Your task to perform on an android device: Go to display settings Image 0: 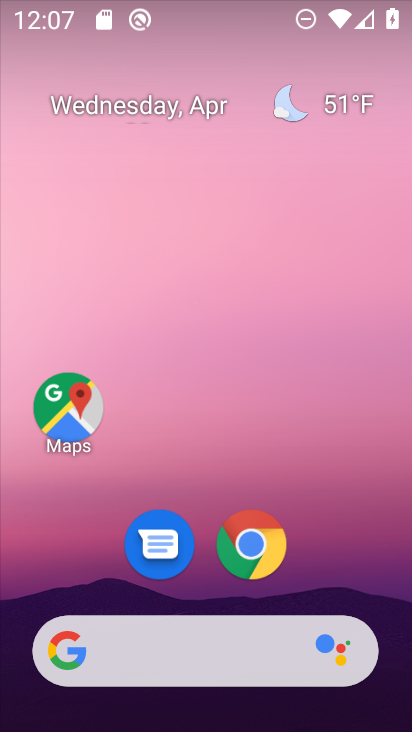
Step 0: drag from (348, 550) to (356, 126)
Your task to perform on an android device: Go to display settings Image 1: 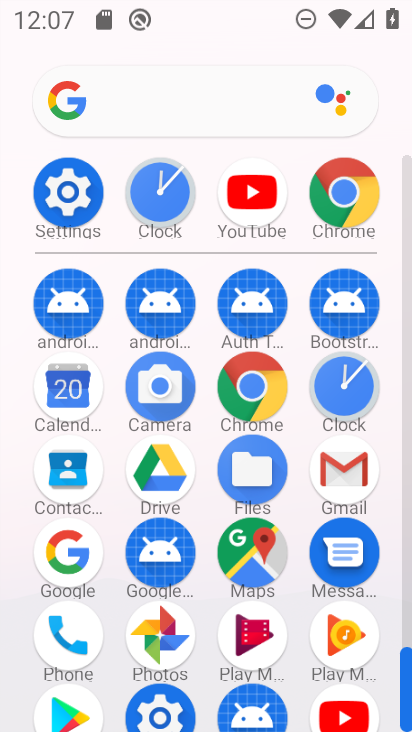
Step 1: click (65, 189)
Your task to perform on an android device: Go to display settings Image 2: 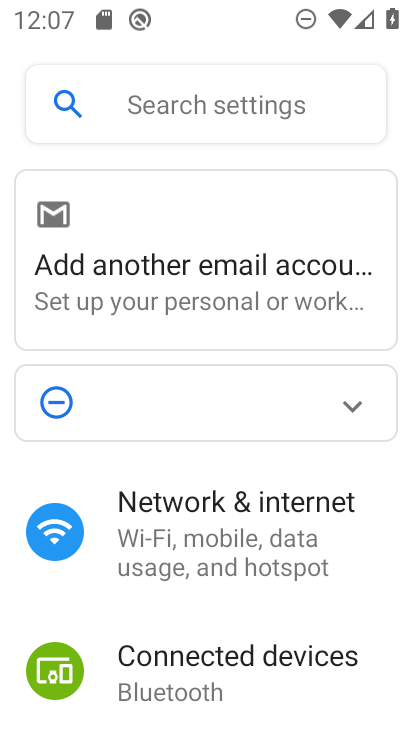
Step 2: drag from (366, 585) to (390, 369)
Your task to perform on an android device: Go to display settings Image 3: 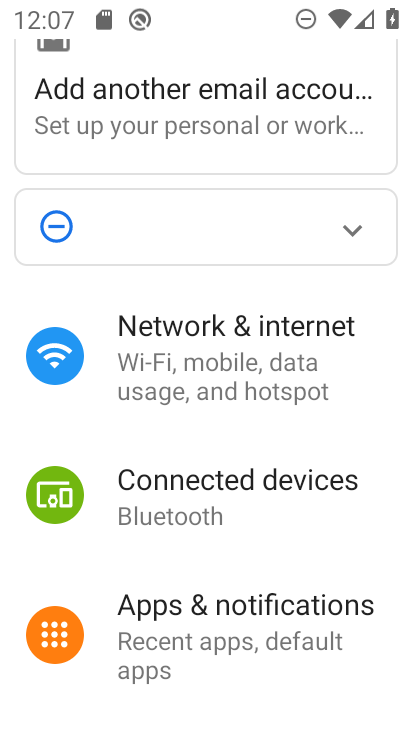
Step 3: drag from (361, 633) to (380, 386)
Your task to perform on an android device: Go to display settings Image 4: 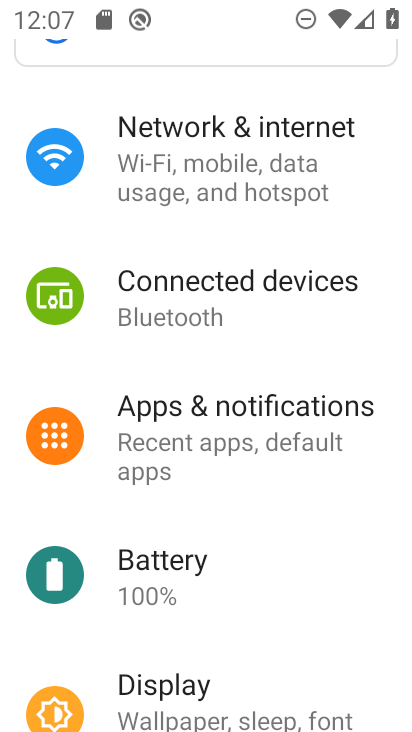
Step 4: drag from (343, 609) to (376, 369)
Your task to perform on an android device: Go to display settings Image 5: 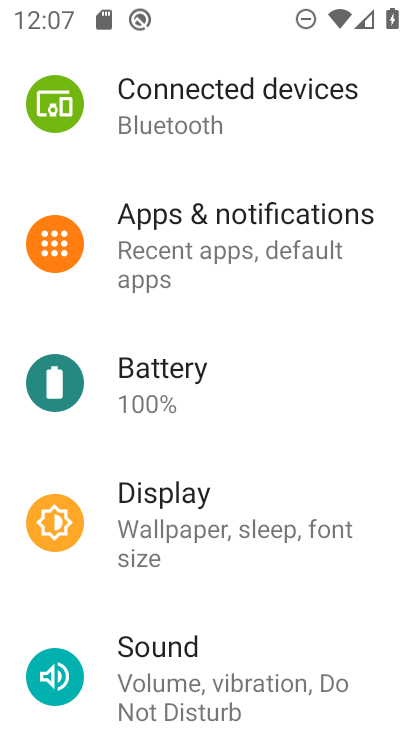
Step 5: drag from (362, 608) to (363, 459)
Your task to perform on an android device: Go to display settings Image 6: 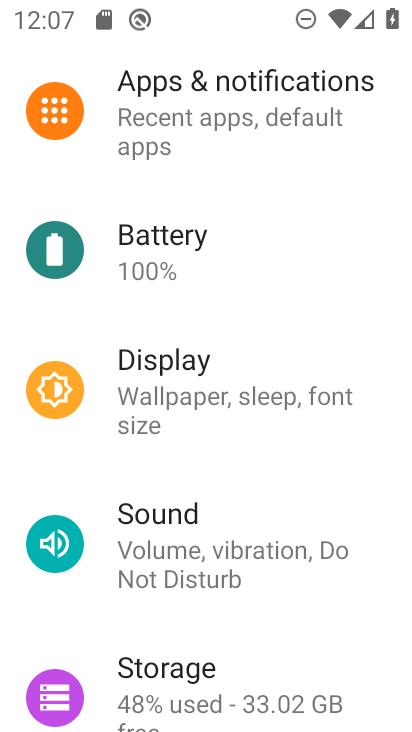
Step 6: drag from (356, 624) to (380, 461)
Your task to perform on an android device: Go to display settings Image 7: 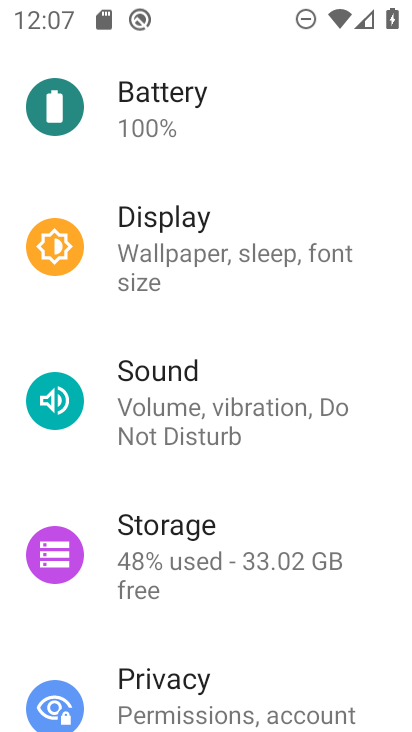
Step 7: drag from (354, 650) to (368, 479)
Your task to perform on an android device: Go to display settings Image 8: 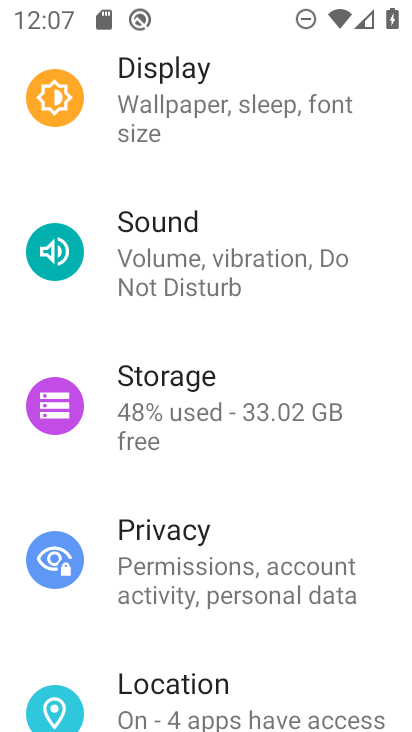
Step 8: drag from (361, 664) to (375, 467)
Your task to perform on an android device: Go to display settings Image 9: 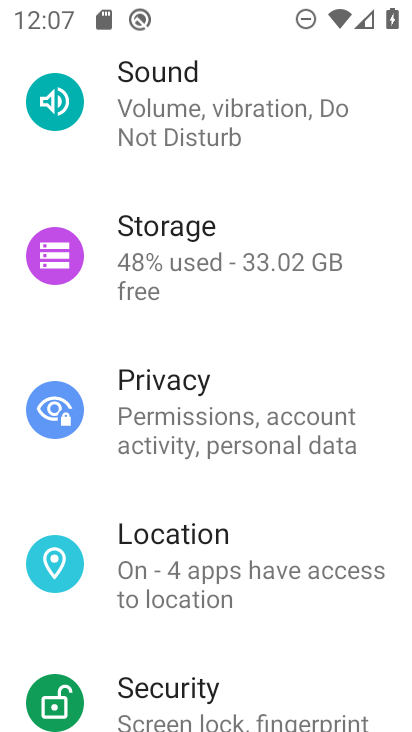
Step 9: drag from (355, 664) to (390, 484)
Your task to perform on an android device: Go to display settings Image 10: 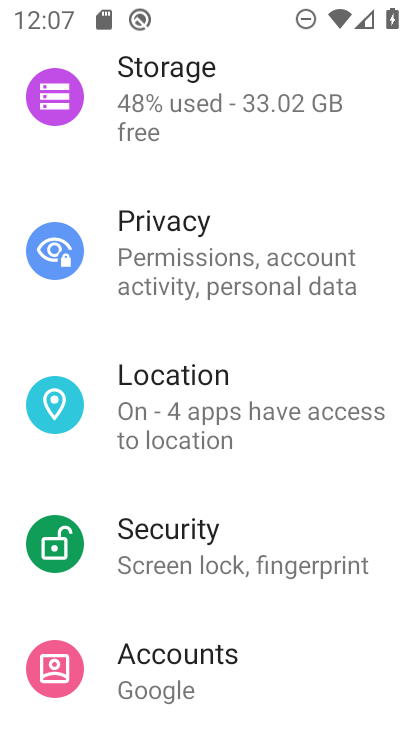
Step 10: drag from (380, 674) to (387, 504)
Your task to perform on an android device: Go to display settings Image 11: 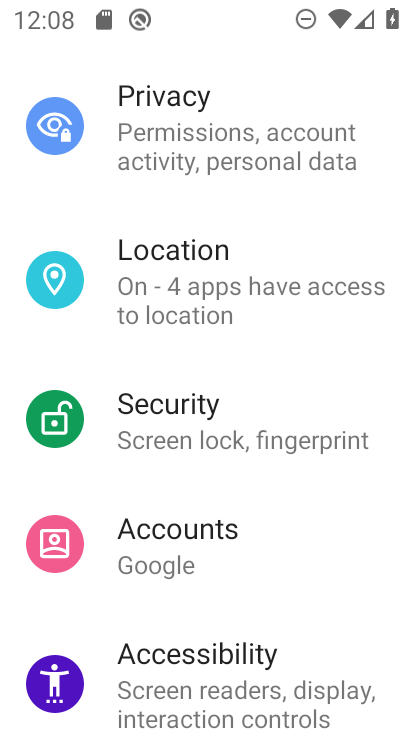
Step 11: drag from (379, 676) to (364, 458)
Your task to perform on an android device: Go to display settings Image 12: 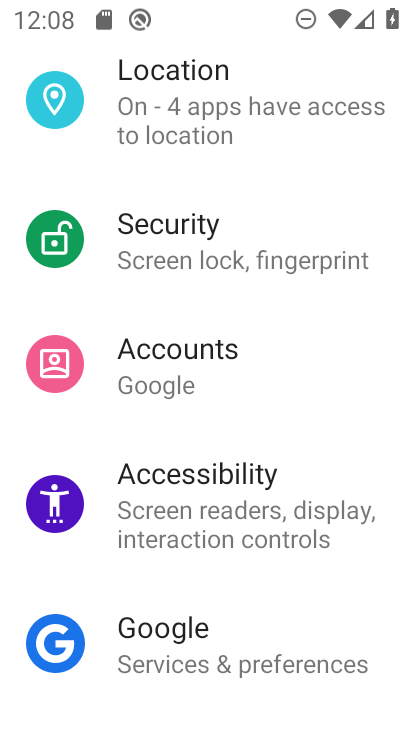
Step 12: drag from (370, 691) to (349, 463)
Your task to perform on an android device: Go to display settings Image 13: 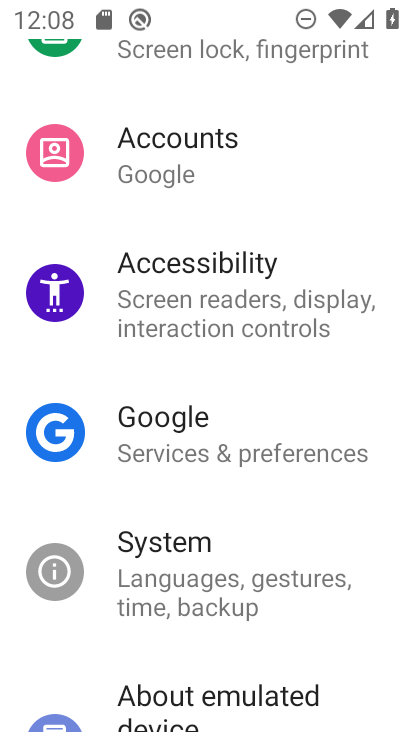
Step 13: drag from (375, 375) to (378, 562)
Your task to perform on an android device: Go to display settings Image 14: 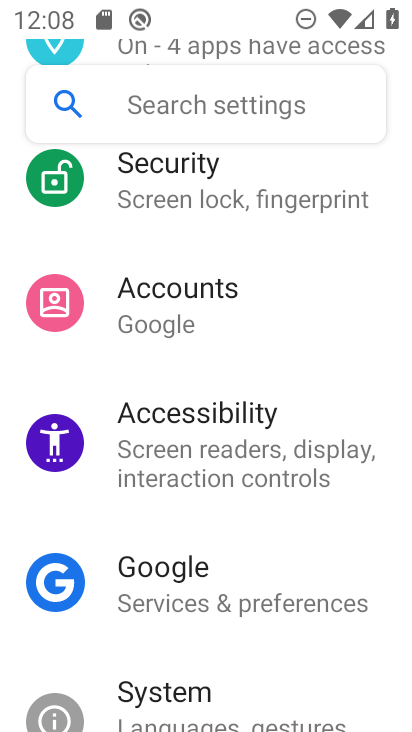
Step 14: drag from (384, 372) to (387, 554)
Your task to perform on an android device: Go to display settings Image 15: 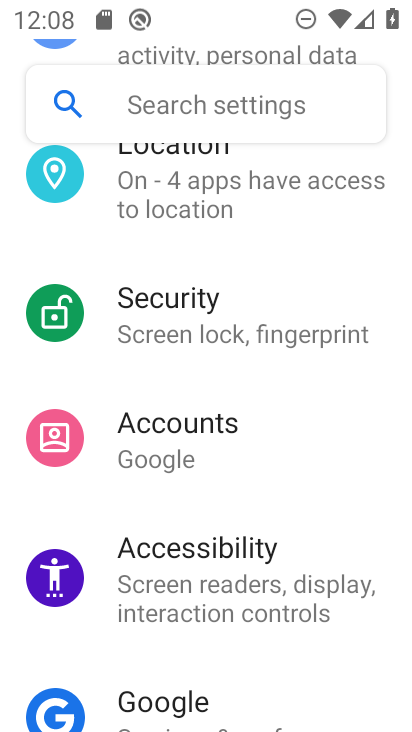
Step 15: drag from (385, 379) to (366, 543)
Your task to perform on an android device: Go to display settings Image 16: 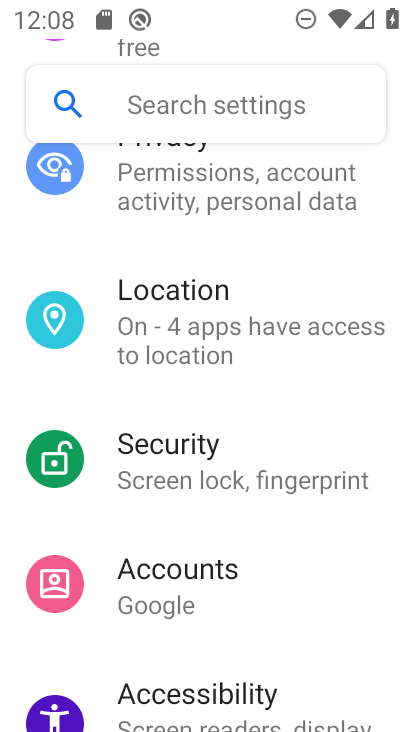
Step 16: drag from (381, 391) to (376, 593)
Your task to perform on an android device: Go to display settings Image 17: 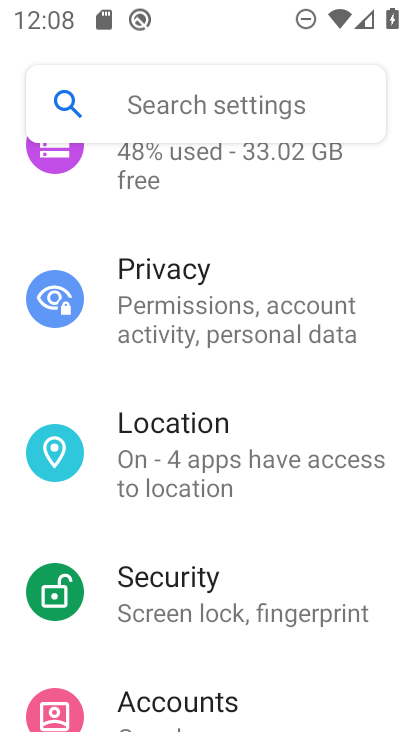
Step 17: drag from (376, 340) to (359, 561)
Your task to perform on an android device: Go to display settings Image 18: 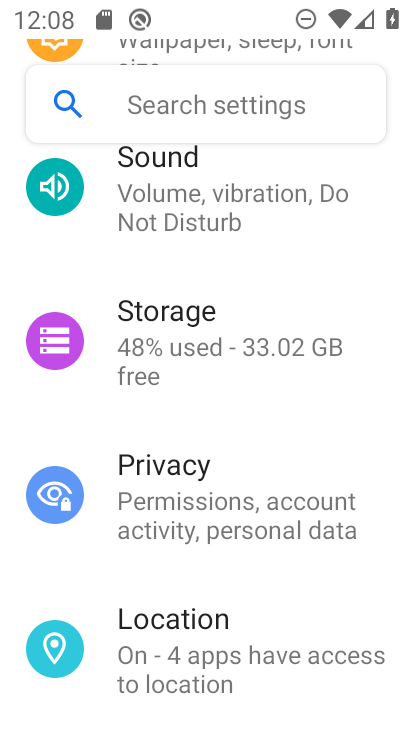
Step 18: drag from (383, 336) to (388, 528)
Your task to perform on an android device: Go to display settings Image 19: 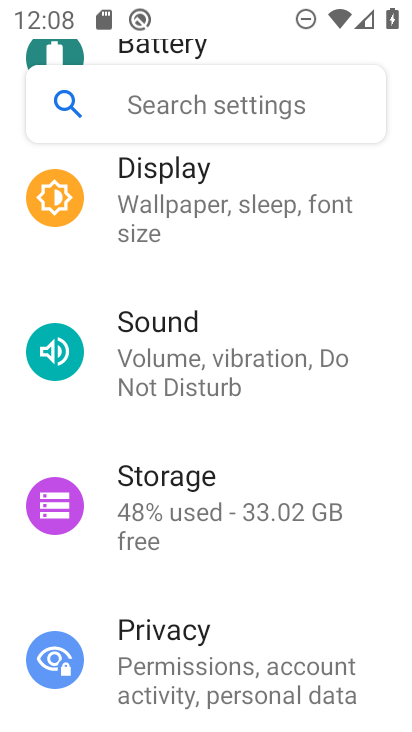
Step 19: drag from (381, 308) to (389, 485)
Your task to perform on an android device: Go to display settings Image 20: 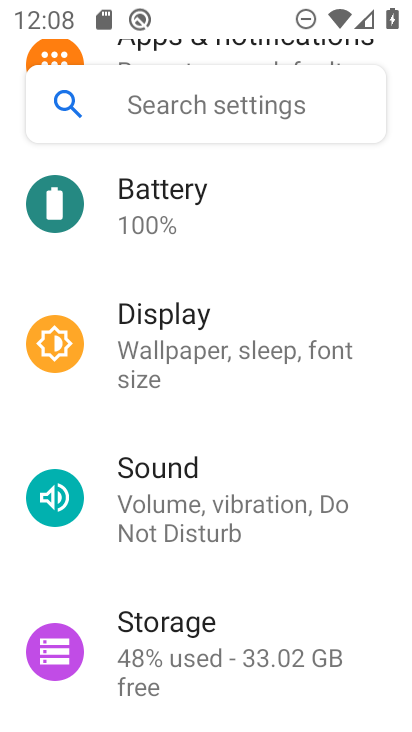
Step 20: click (243, 349)
Your task to perform on an android device: Go to display settings Image 21: 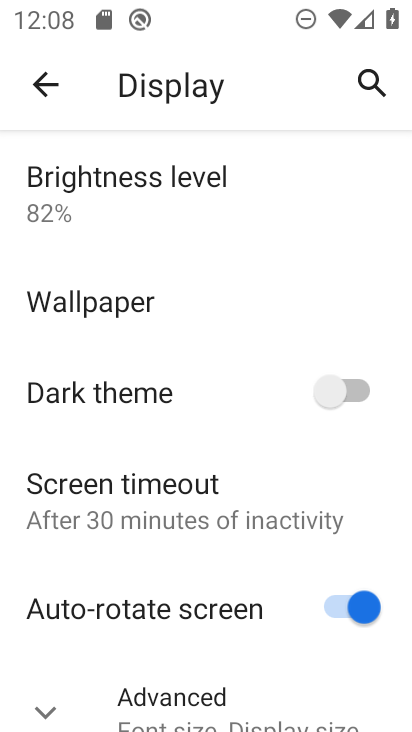
Step 21: task complete